Your task to perform on an android device: set the stopwatch Image 0: 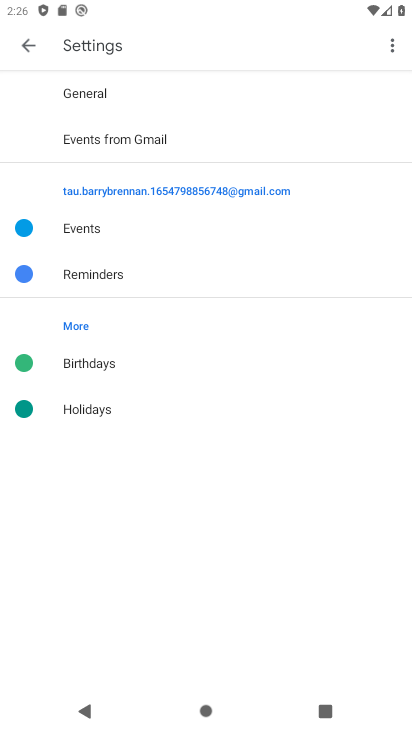
Step 0: press home button
Your task to perform on an android device: set the stopwatch Image 1: 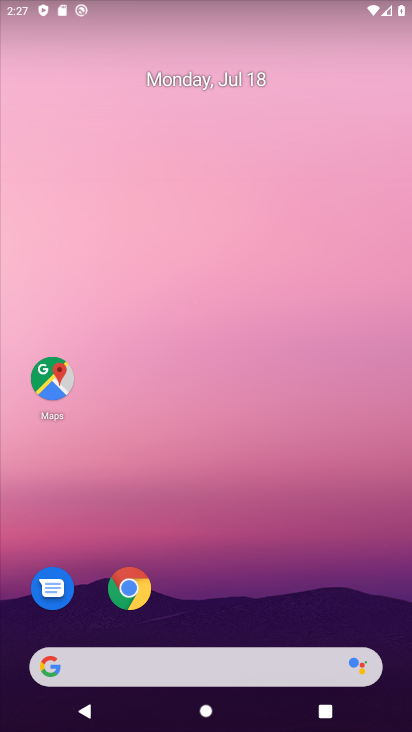
Step 1: drag from (317, 547) to (354, 0)
Your task to perform on an android device: set the stopwatch Image 2: 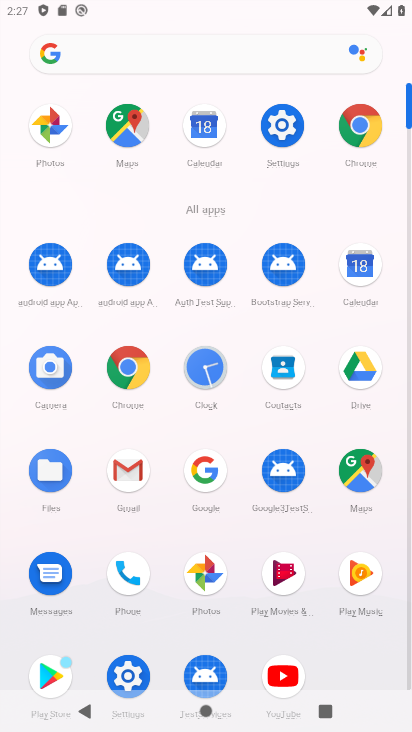
Step 2: click (179, 375)
Your task to perform on an android device: set the stopwatch Image 3: 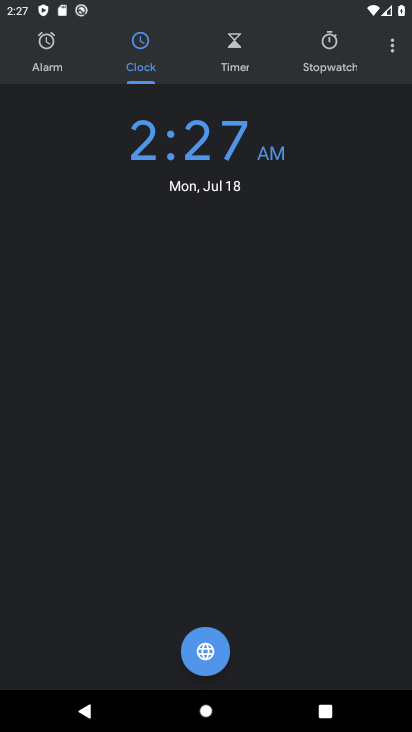
Step 3: click (318, 59)
Your task to perform on an android device: set the stopwatch Image 4: 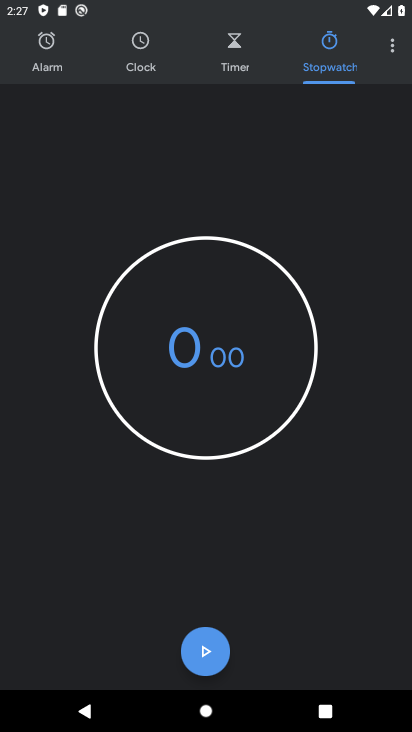
Step 4: click (208, 659)
Your task to perform on an android device: set the stopwatch Image 5: 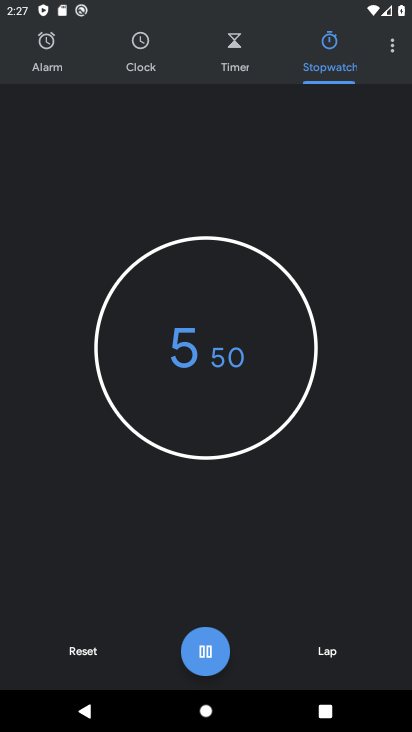
Step 5: task complete